Your task to perform on an android device: Go to settings Image 0: 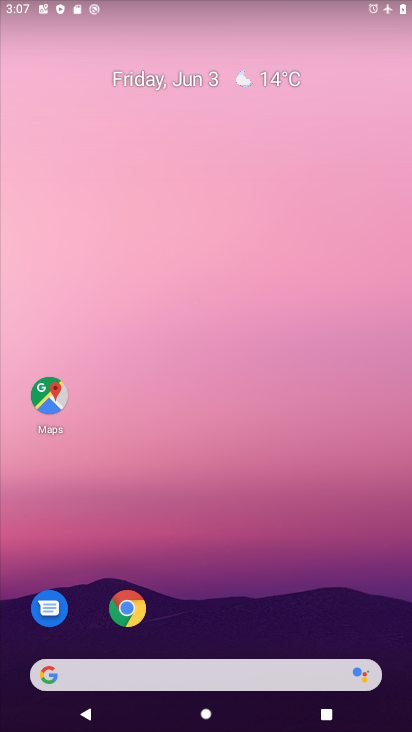
Step 0: drag from (134, 665) to (227, 30)
Your task to perform on an android device: Go to settings Image 1: 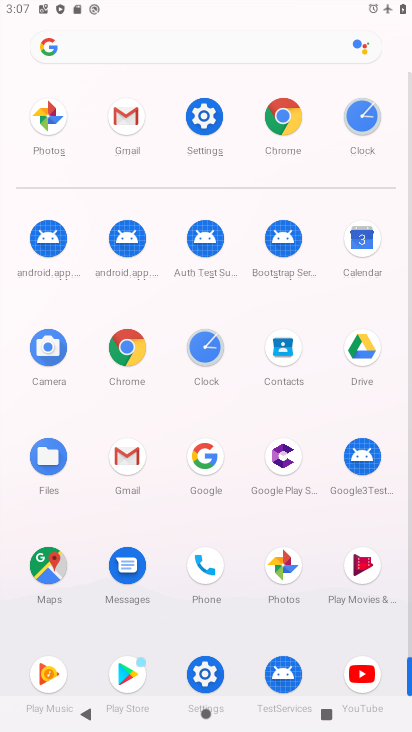
Step 1: click (212, 123)
Your task to perform on an android device: Go to settings Image 2: 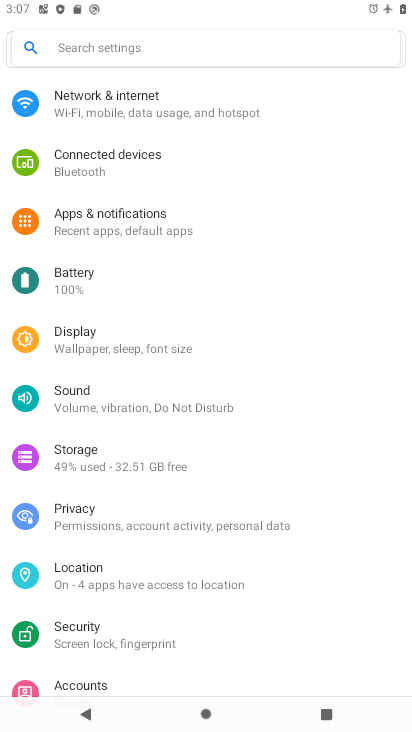
Step 2: task complete